Your task to perform on an android device: Go to battery settings Image 0: 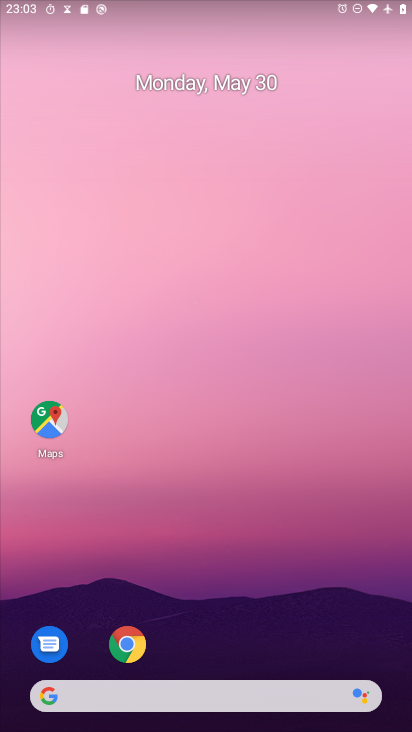
Step 0: drag from (208, 655) to (285, 7)
Your task to perform on an android device: Go to battery settings Image 1: 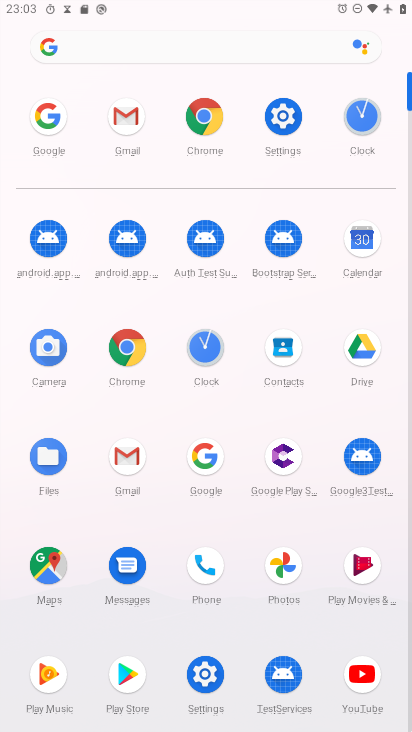
Step 1: click (280, 115)
Your task to perform on an android device: Go to battery settings Image 2: 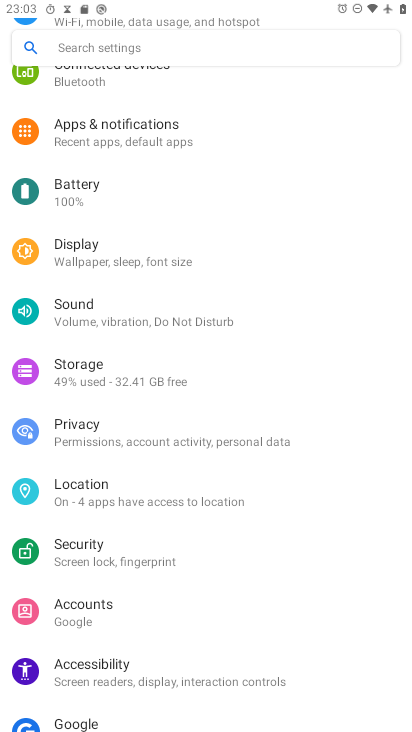
Step 2: click (101, 190)
Your task to perform on an android device: Go to battery settings Image 3: 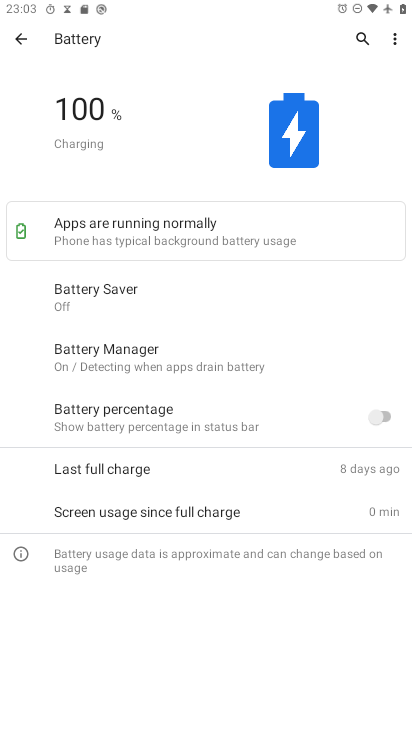
Step 3: task complete